Your task to perform on an android device: change keyboard looks Image 0: 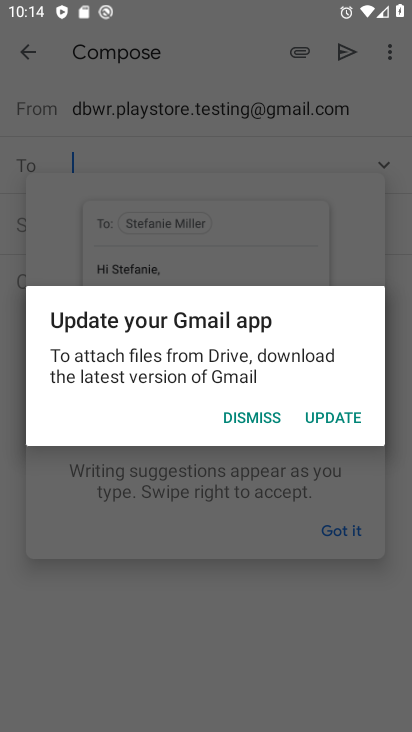
Step 0: press home button
Your task to perform on an android device: change keyboard looks Image 1: 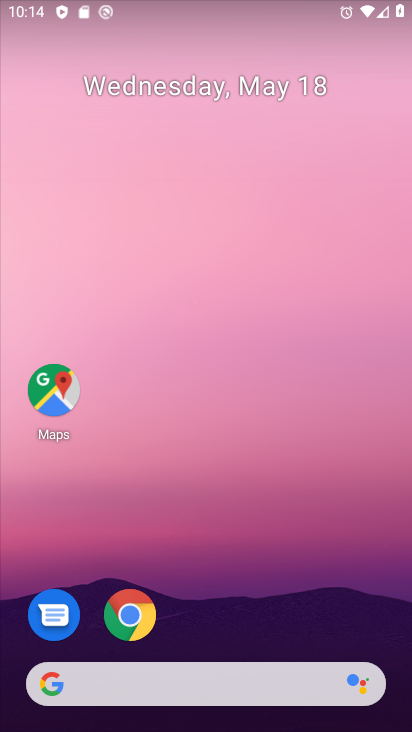
Step 1: drag from (174, 530) to (179, 379)
Your task to perform on an android device: change keyboard looks Image 2: 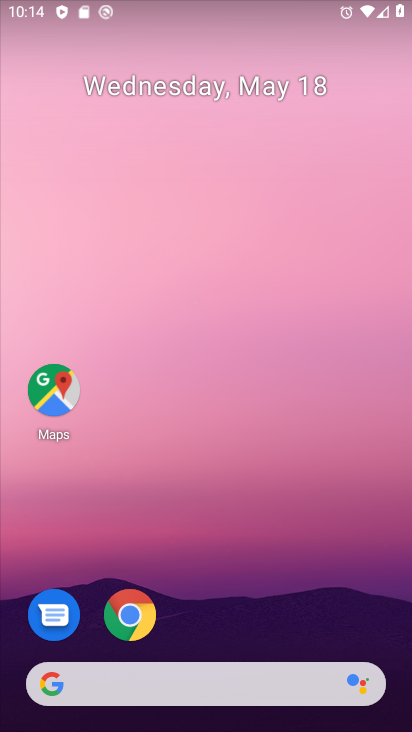
Step 2: drag from (195, 658) to (257, 222)
Your task to perform on an android device: change keyboard looks Image 3: 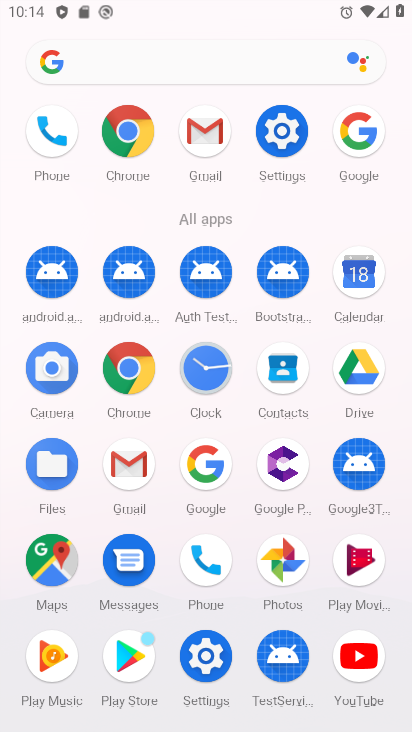
Step 3: click (282, 134)
Your task to perform on an android device: change keyboard looks Image 4: 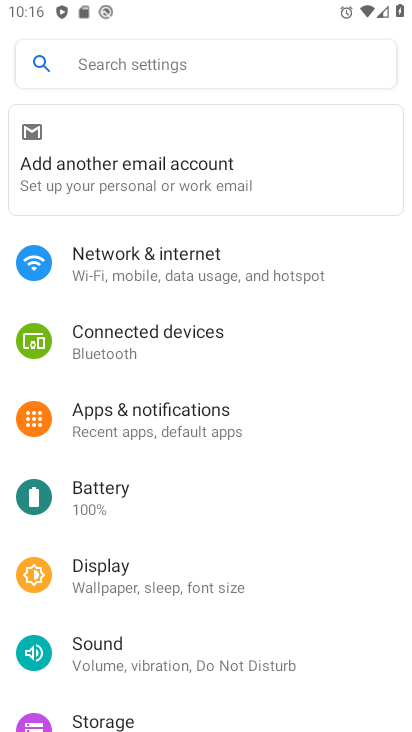
Step 4: drag from (109, 702) to (145, 230)
Your task to perform on an android device: change keyboard looks Image 5: 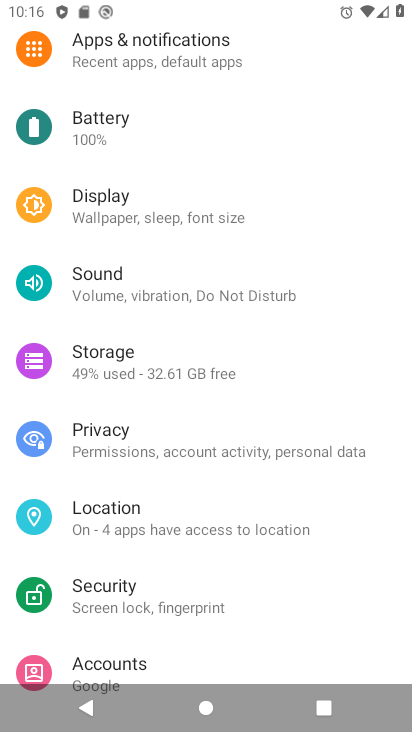
Step 5: drag from (125, 575) to (133, 306)
Your task to perform on an android device: change keyboard looks Image 6: 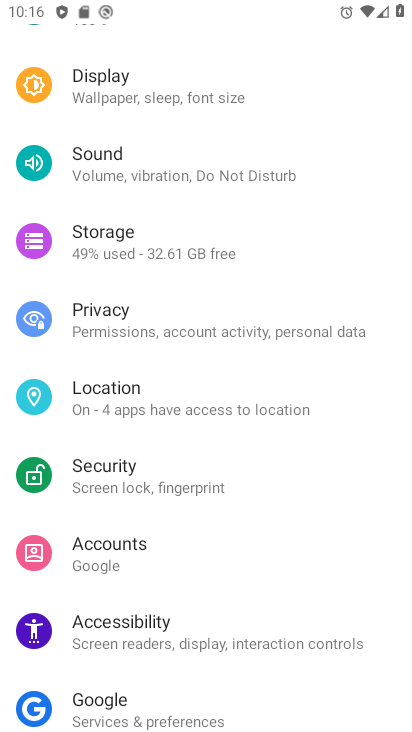
Step 6: drag from (118, 689) to (136, 359)
Your task to perform on an android device: change keyboard looks Image 7: 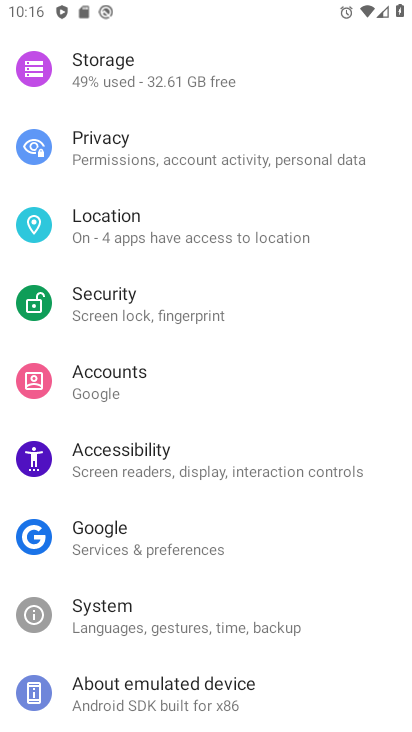
Step 7: click (147, 633)
Your task to perform on an android device: change keyboard looks Image 8: 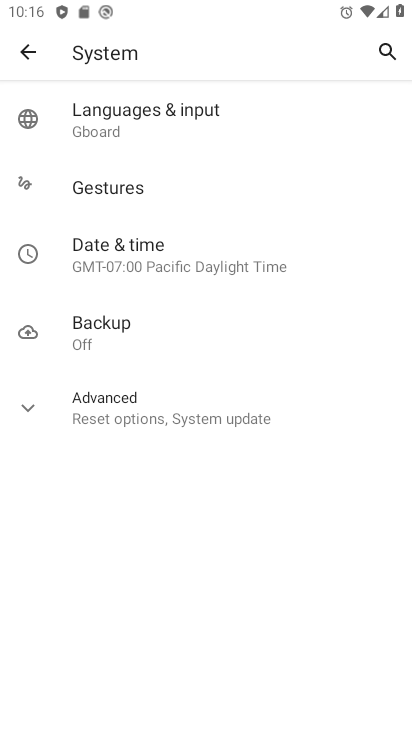
Step 8: click (114, 116)
Your task to perform on an android device: change keyboard looks Image 9: 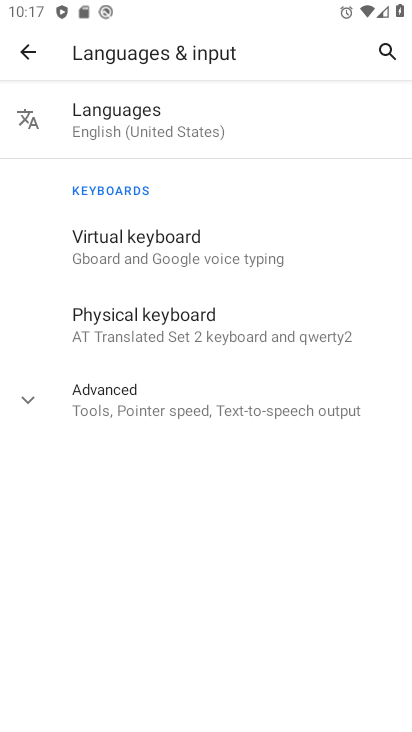
Step 9: click (147, 247)
Your task to perform on an android device: change keyboard looks Image 10: 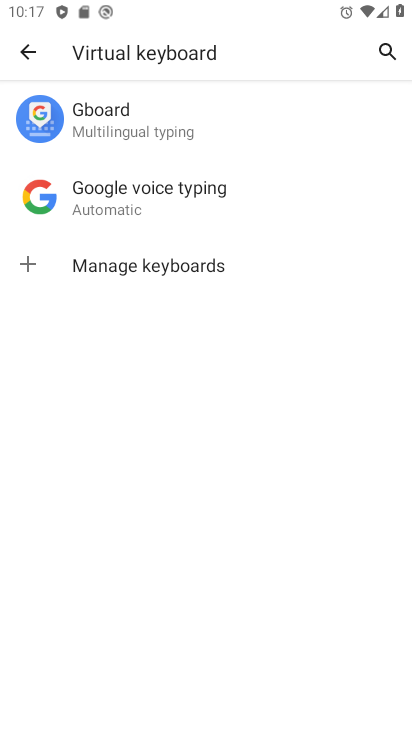
Step 10: click (122, 109)
Your task to perform on an android device: change keyboard looks Image 11: 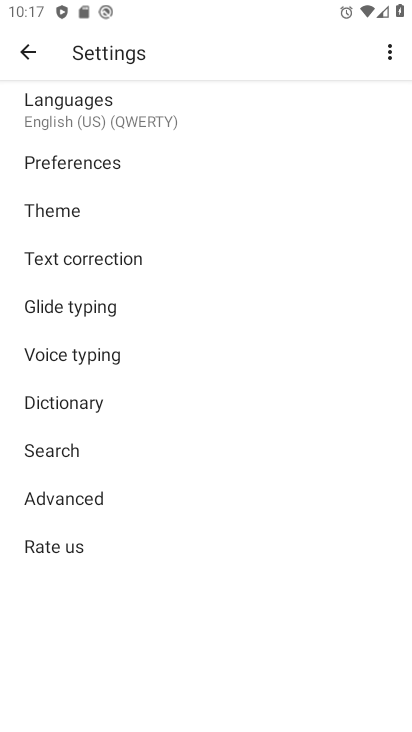
Step 11: click (31, 218)
Your task to perform on an android device: change keyboard looks Image 12: 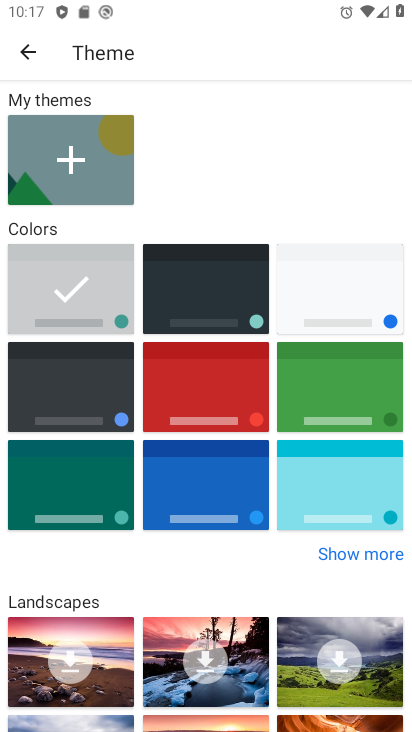
Step 12: click (169, 274)
Your task to perform on an android device: change keyboard looks Image 13: 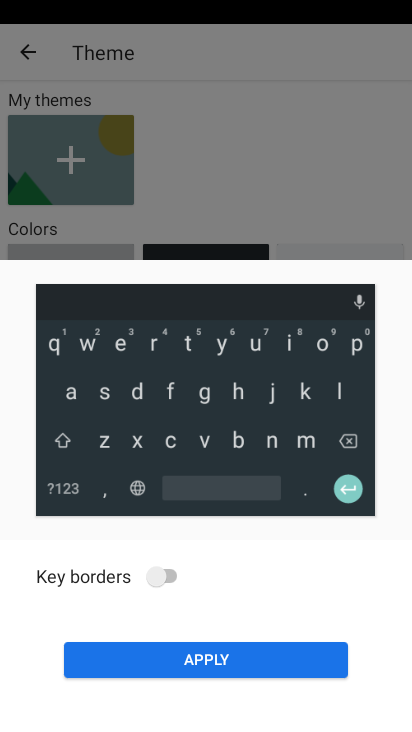
Step 13: click (240, 663)
Your task to perform on an android device: change keyboard looks Image 14: 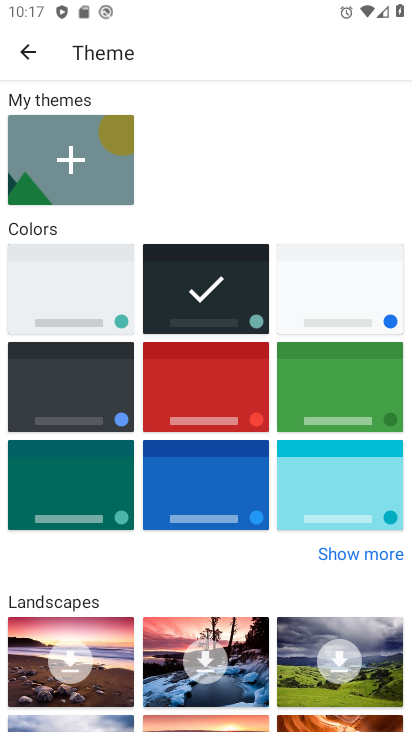
Step 14: task complete